Your task to perform on an android device: Go to Google Image 0: 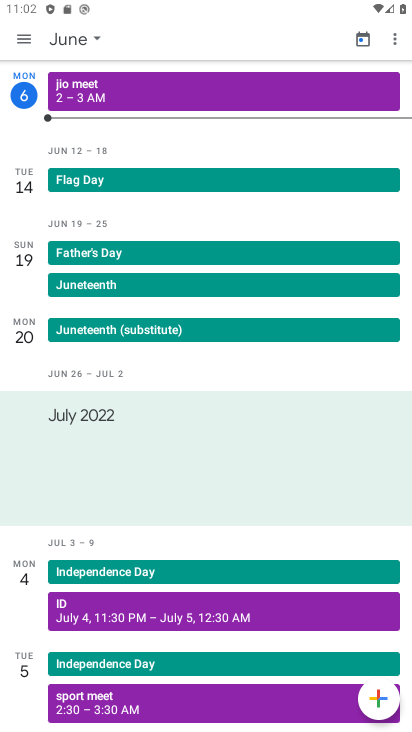
Step 0: press home button
Your task to perform on an android device: Go to Google Image 1: 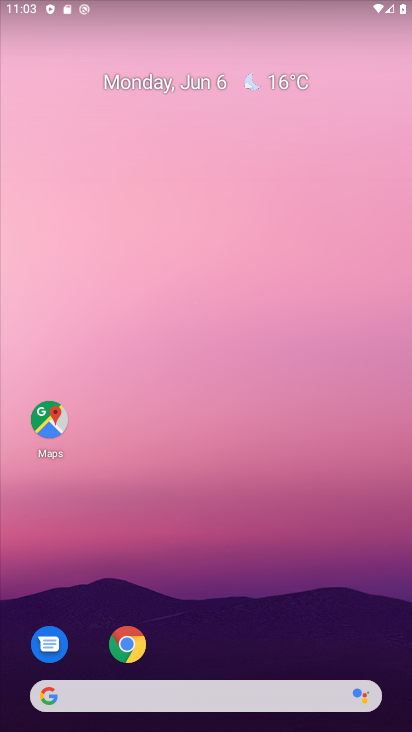
Step 1: drag from (203, 646) to (409, 2)
Your task to perform on an android device: Go to Google Image 2: 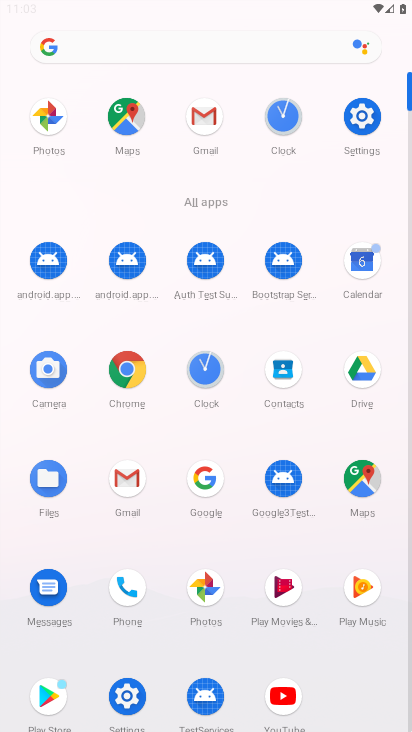
Step 2: click (205, 473)
Your task to perform on an android device: Go to Google Image 3: 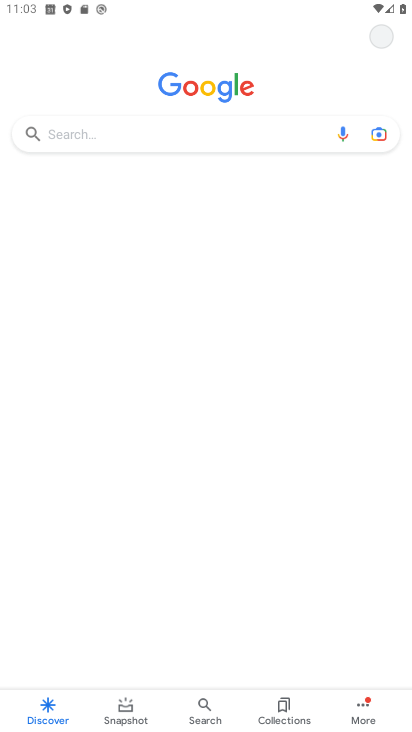
Step 3: task complete